Your task to perform on an android device: Search for razer deathadder on newegg, select the first entry, add it to the cart, then select checkout. Image 0: 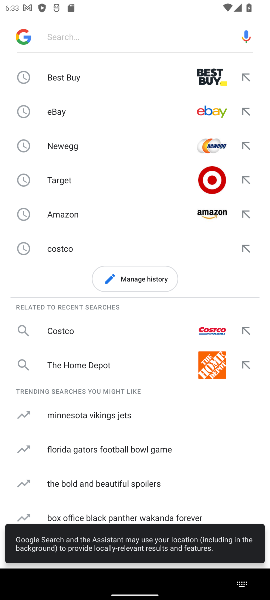
Step 0: click (211, 146)
Your task to perform on an android device: Search for razer deathadder on newegg, select the first entry, add it to the cart, then select checkout. Image 1: 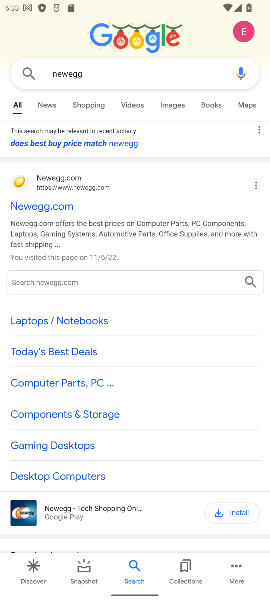
Step 1: click (53, 201)
Your task to perform on an android device: Search for razer deathadder on newegg, select the first entry, add it to the cart, then select checkout. Image 2: 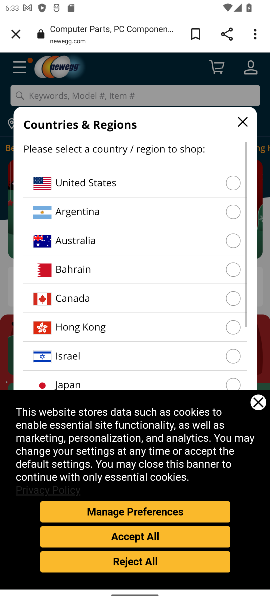
Step 2: click (233, 180)
Your task to perform on an android device: Search for razer deathadder on newegg, select the first entry, add it to the cart, then select checkout. Image 3: 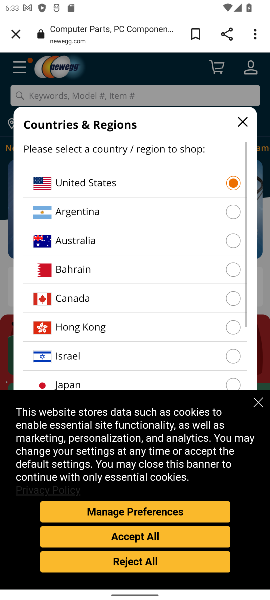
Step 3: click (108, 532)
Your task to perform on an android device: Search for razer deathadder on newegg, select the first entry, add it to the cart, then select checkout. Image 4: 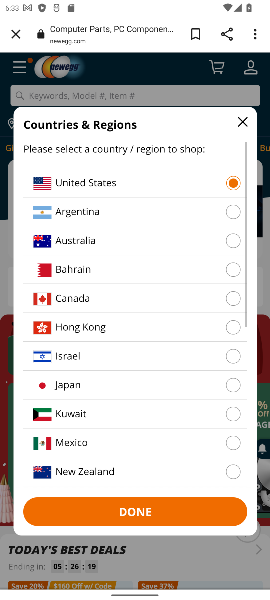
Step 4: click (123, 513)
Your task to perform on an android device: Search for razer deathadder on newegg, select the first entry, add it to the cart, then select checkout. Image 5: 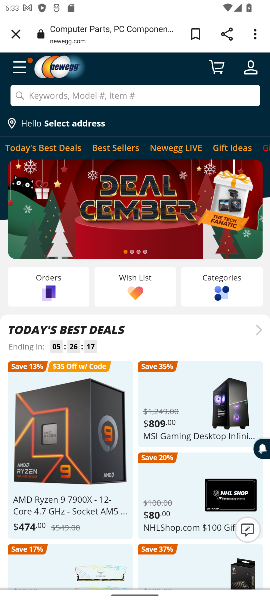
Step 5: click (169, 98)
Your task to perform on an android device: Search for razer deathadder on newegg, select the first entry, add it to the cart, then select checkout. Image 6: 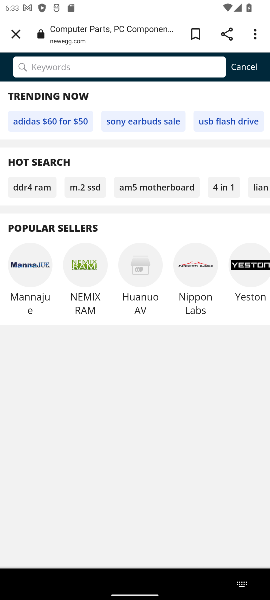
Step 6: type "razer deathadder"
Your task to perform on an android device: Search for razer deathadder on newegg, select the first entry, add it to the cart, then select checkout. Image 7: 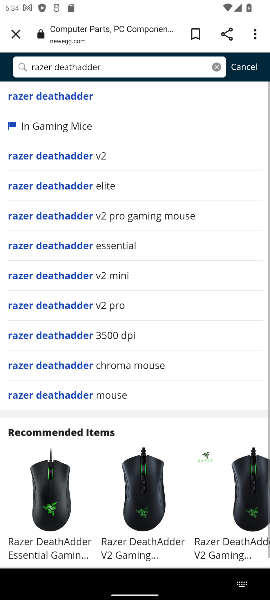
Step 7: click (17, 90)
Your task to perform on an android device: Search for razer deathadder on newegg, select the first entry, add it to the cart, then select checkout. Image 8: 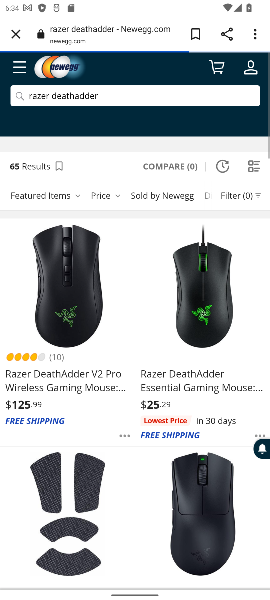
Step 8: click (23, 96)
Your task to perform on an android device: Search for razer deathadder on newegg, select the first entry, add it to the cart, then select checkout. Image 9: 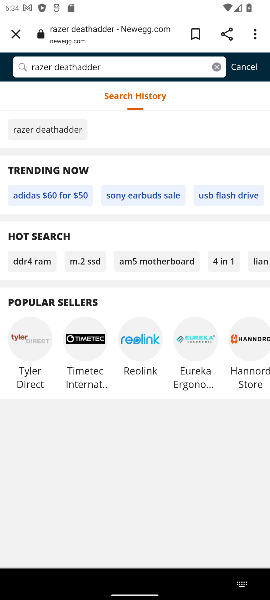
Step 9: click (218, 70)
Your task to perform on an android device: Search for razer deathadder on newegg, select the first entry, add it to the cart, then select checkout. Image 10: 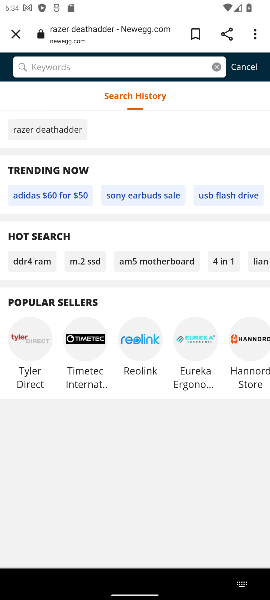
Step 10: click (80, 128)
Your task to perform on an android device: Search for razer deathadder on newegg, select the first entry, add it to the cart, then select checkout. Image 11: 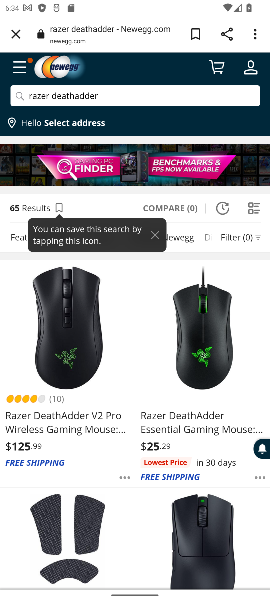
Step 11: click (63, 430)
Your task to perform on an android device: Search for razer deathadder on newegg, select the first entry, add it to the cart, then select checkout. Image 12: 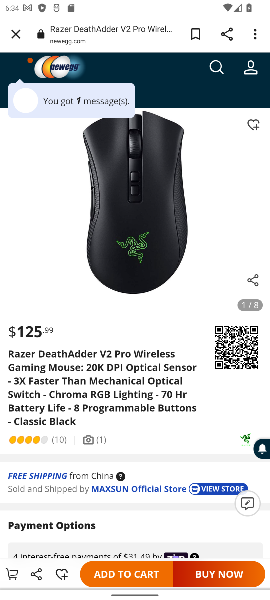
Step 12: click (121, 572)
Your task to perform on an android device: Search for razer deathadder on newegg, select the first entry, add it to the cart, then select checkout. Image 13: 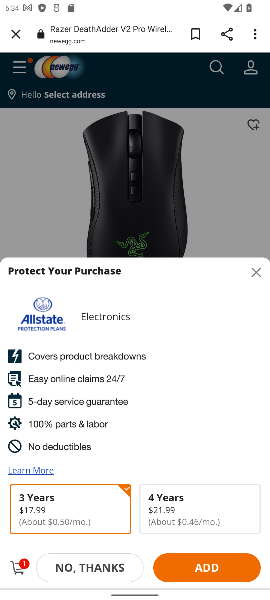
Step 13: click (121, 572)
Your task to perform on an android device: Search for razer deathadder on newegg, select the first entry, add it to the cart, then select checkout. Image 14: 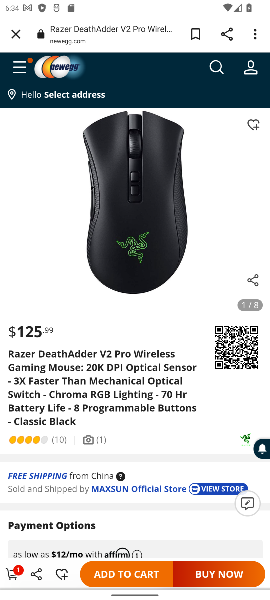
Step 14: click (8, 576)
Your task to perform on an android device: Search for razer deathadder on newegg, select the first entry, add it to the cart, then select checkout. Image 15: 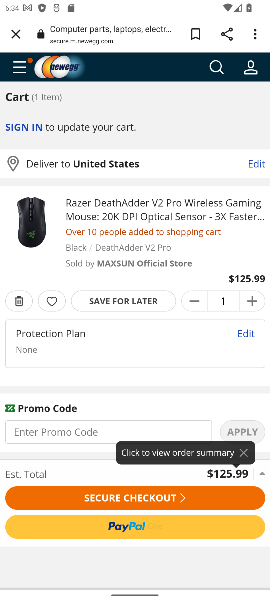
Step 15: click (134, 501)
Your task to perform on an android device: Search for razer deathadder on newegg, select the first entry, add it to the cart, then select checkout. Image 16: 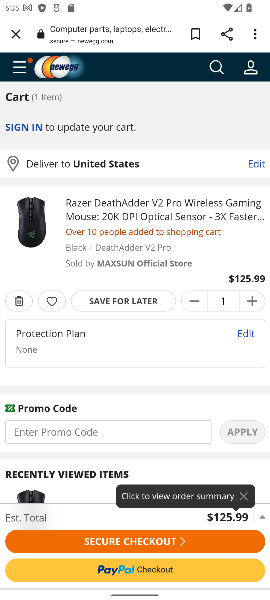
Step 16: click (143, 545)
Your task to perform on an android device: Search for razer deathadder on newegg, select the first entry, add it to the cart, then select checkout. Image 17: 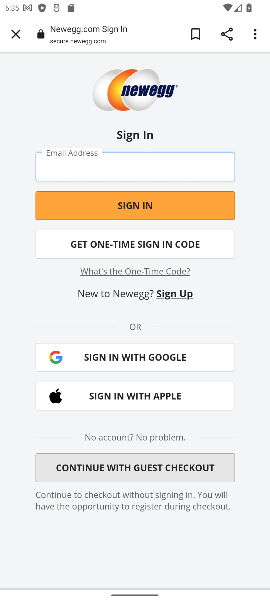
Step 17: task complete